Your task to perform on an android device: star an email in the gmail app Image 0: 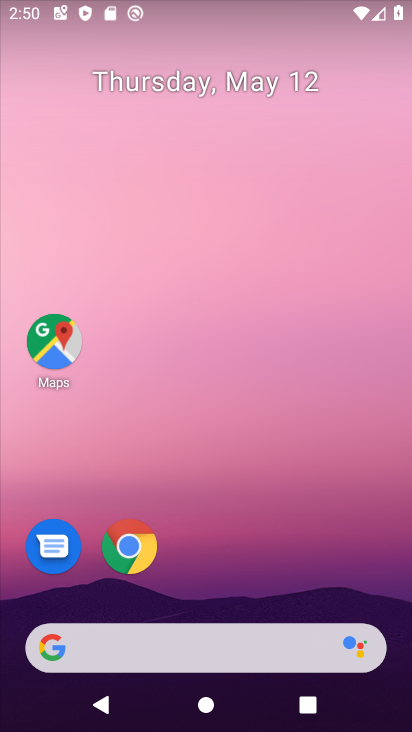
Step 0: drag from (253, 589) to (242, 234)
Your task to perform on an android device: star an email in the gmail app Image 1: 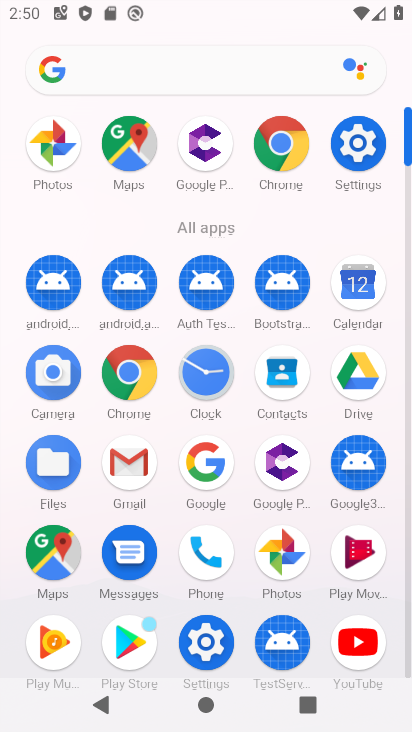
Step 1: click (124, 459)
Your task to perform on an android device: star an email in the gmail app Image 2: 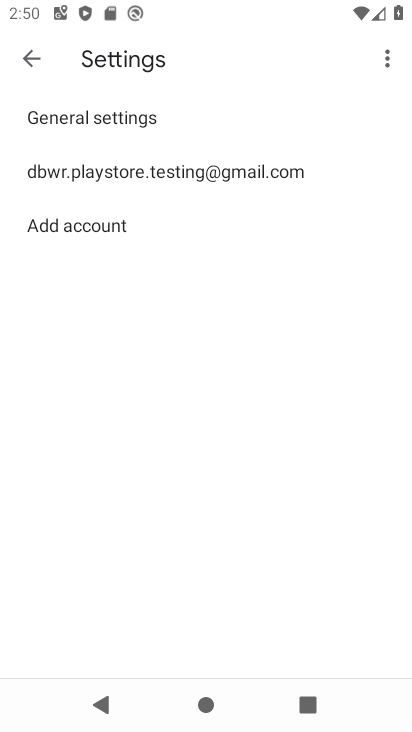
Step 2: click (106, 170)
Your task to perform on an android device: star an email in the gmail app Image 3: 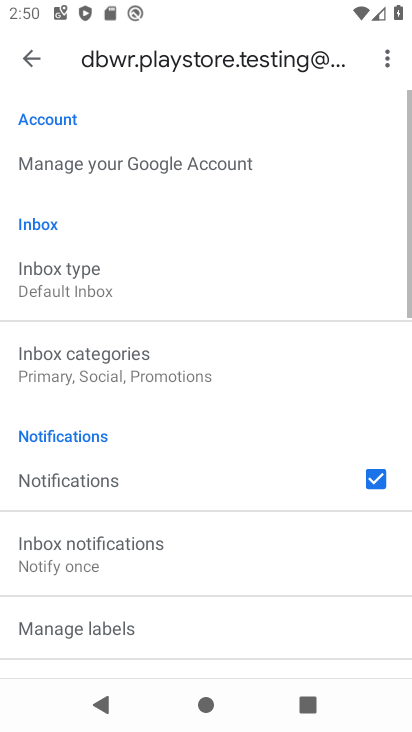
Step 3: click (22, 49)
Your task to perform on an android device: star an email in the gmail app Image 4: 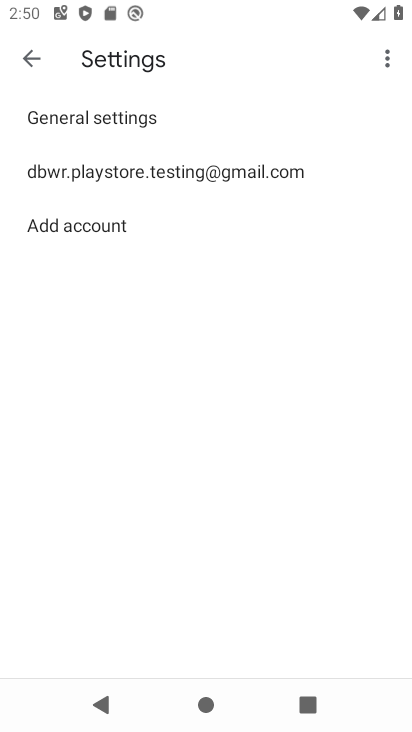
Step 4: click (22, 49)
Your task to perform on an android device: star an email in the gmail app Image 5: 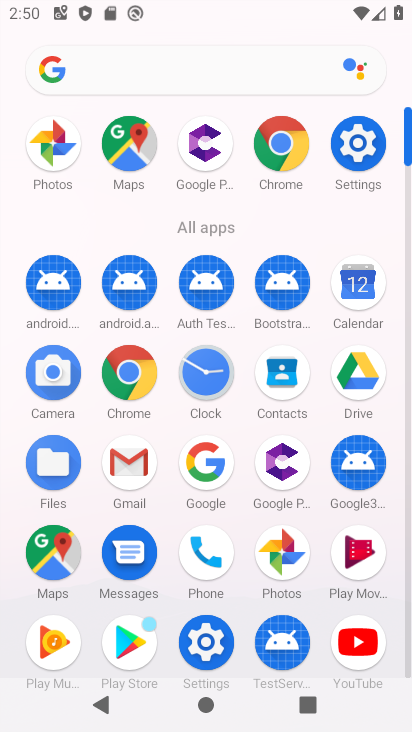
Step 5: click (119, 460)
Your task to perform on an android device: star an email in the gmail app Image 6: 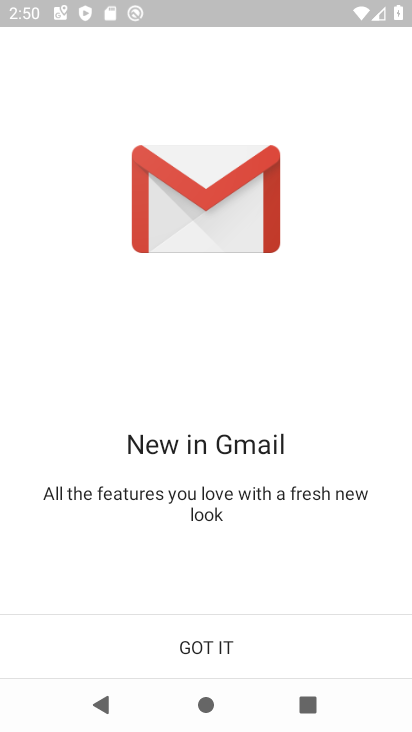
Step 6: click (232, 649)
Your task to perform on an android device: star an email in the gmail app Image 7: 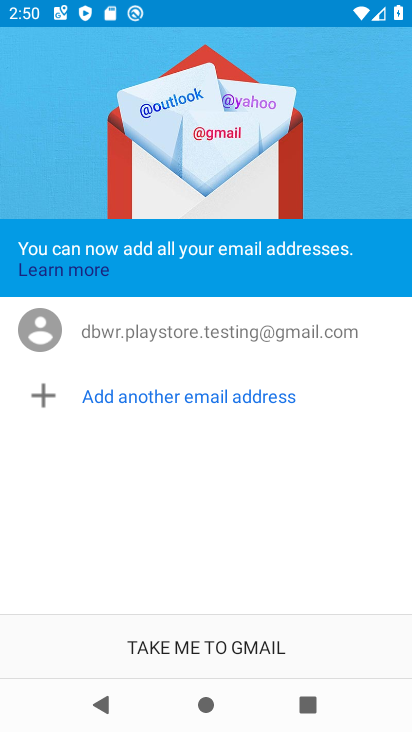
Step 7: click (231, 649)
Your task to perform on an android device: star an email in the gmail app Image 8: 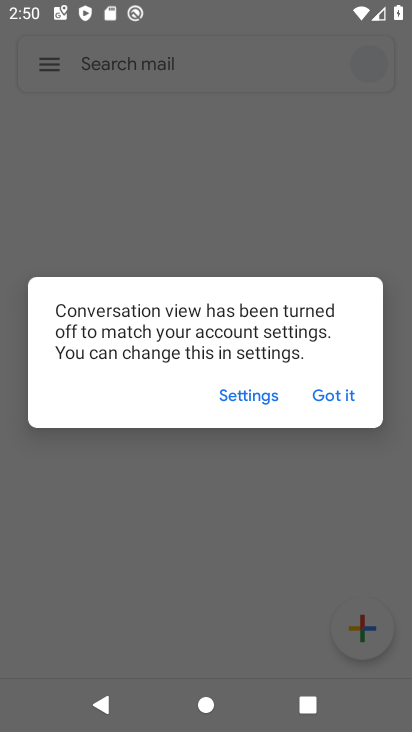
Step 8: click (327, 399)
Your task to perform on an android device: star an email in the gmail app Image 9: 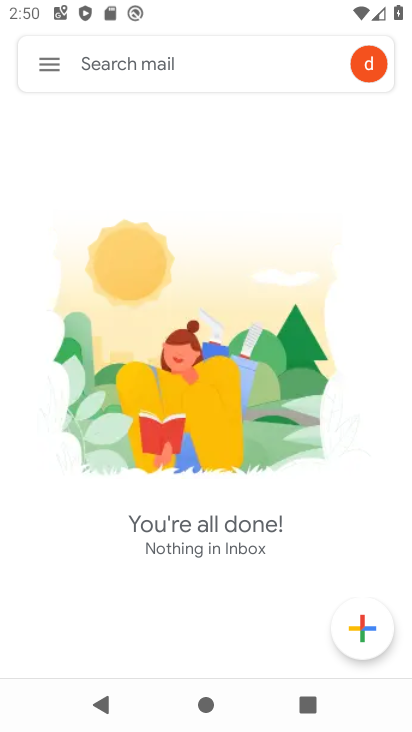
Step 9: click (47, 65)
Your task to perform on an android device: star an email in the gmail app Image 10: 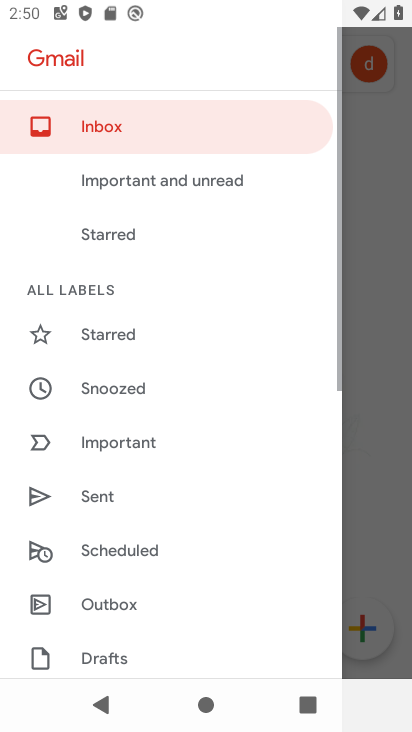
Step 10: click (133, 238)
Your task to perform on an android device: star an email in the gmail app Image 11: 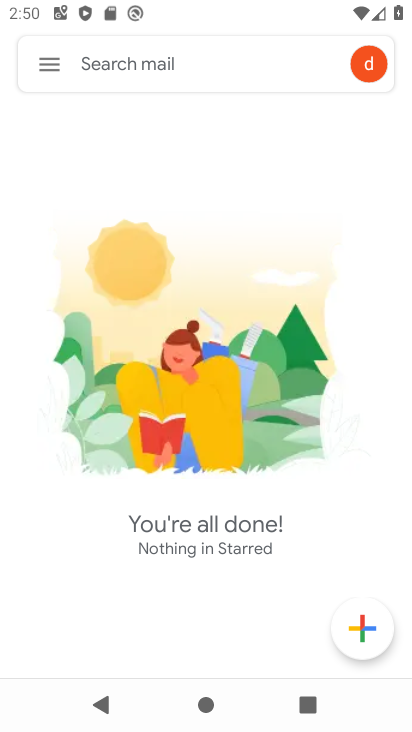
Step 11: task complete